Your task to perform on an android device: Look up the best gaming chair on Best Buy. Image 0: 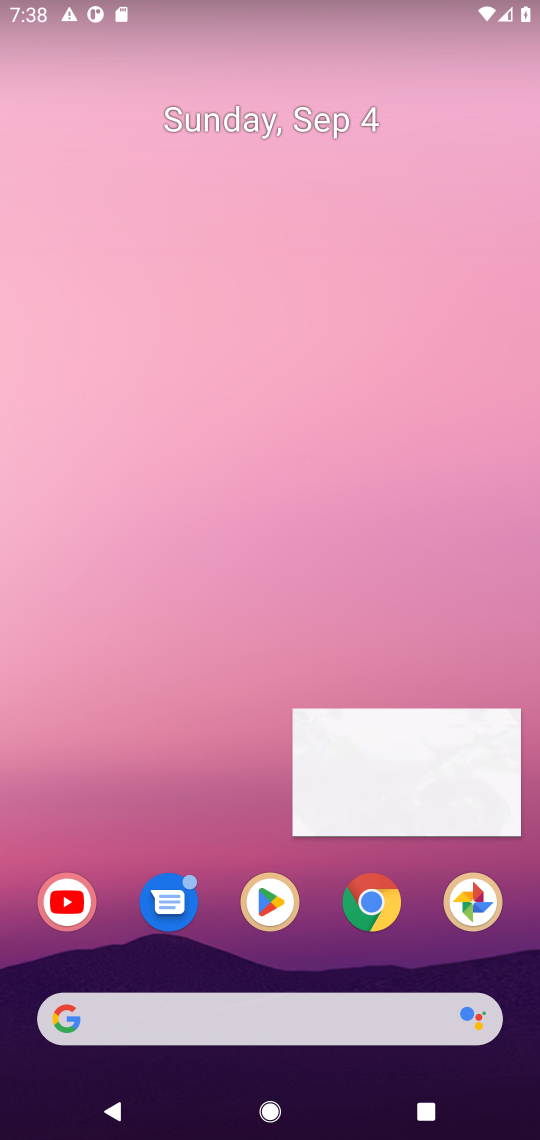
Step 0: click (353, 788)
Your task to perform on an android device: Look up the best gaming chair on Best Buy. Image 1: 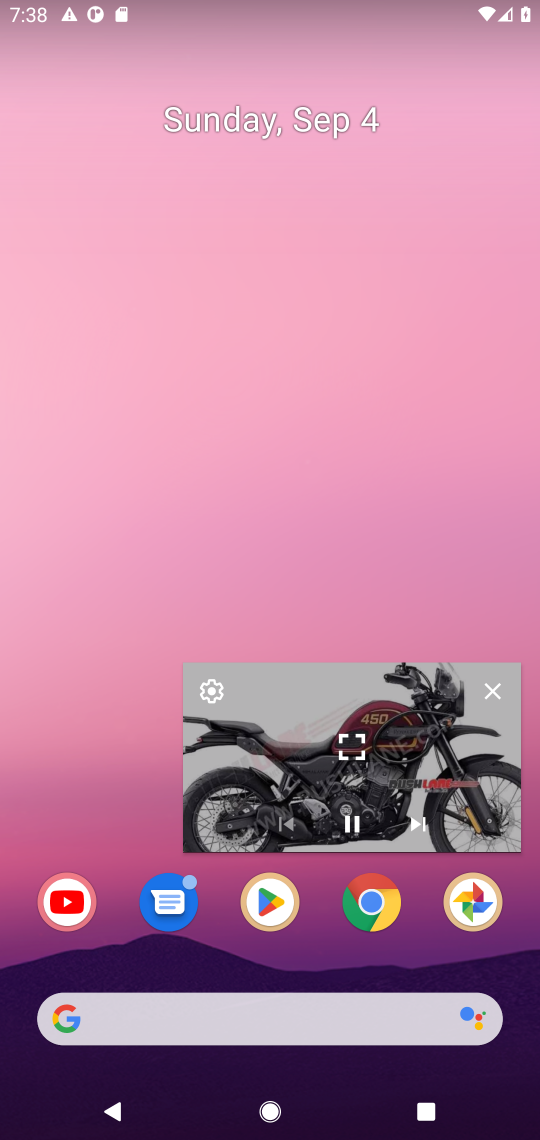
Step 1: click (476, 709)
Your task to perform on an android device: Look up the best gaming chair on Best Buy. Image 2: 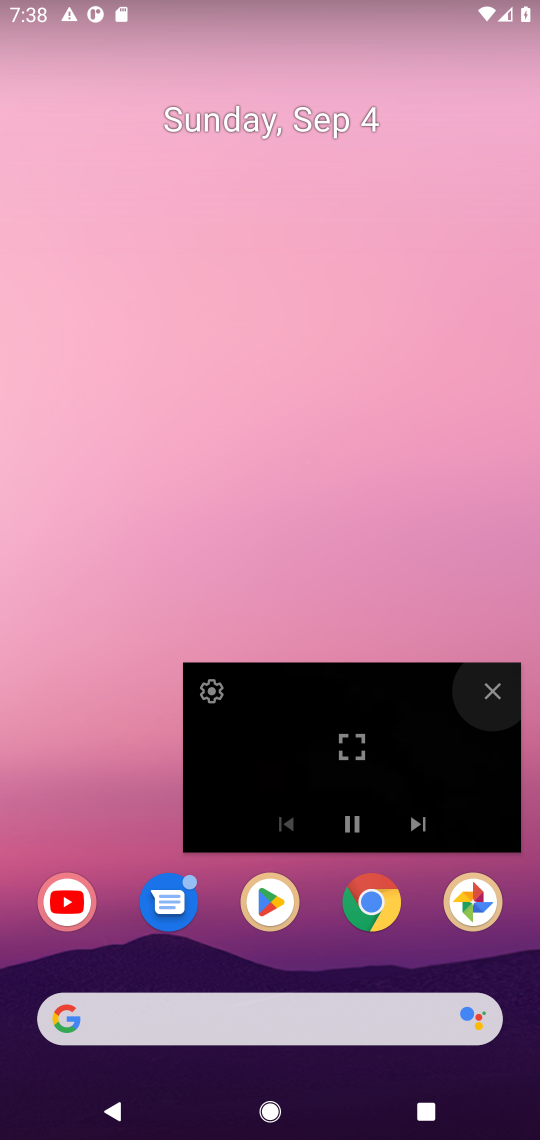
Step 2: click (485, 693)
Your task to perform on an android device: Look up the best gaming chair on Best Buy. Image 3: 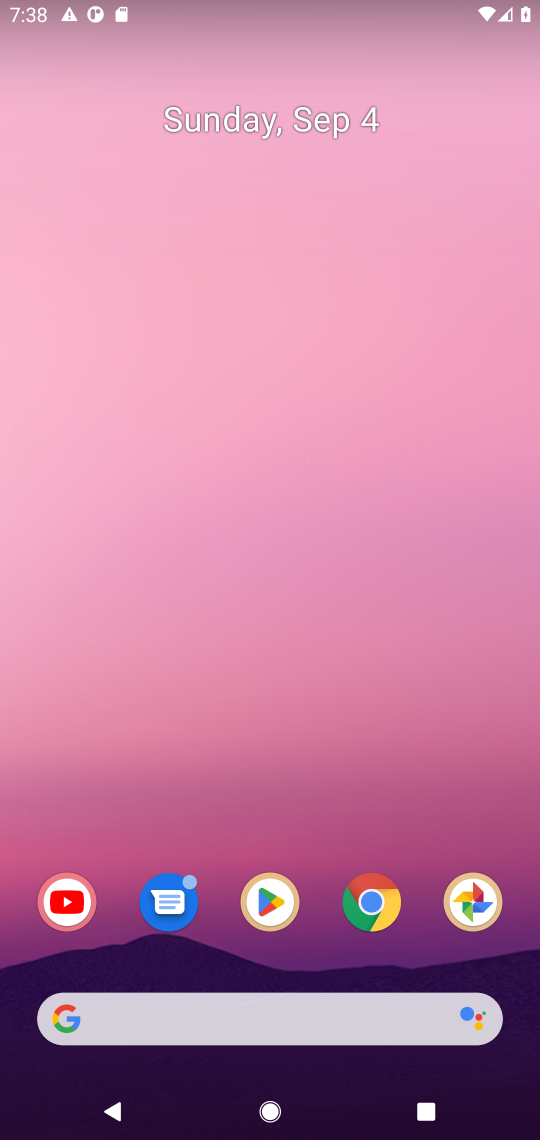
Step 3: task complete